Your task to perform on an android device: turn off location Image 0: 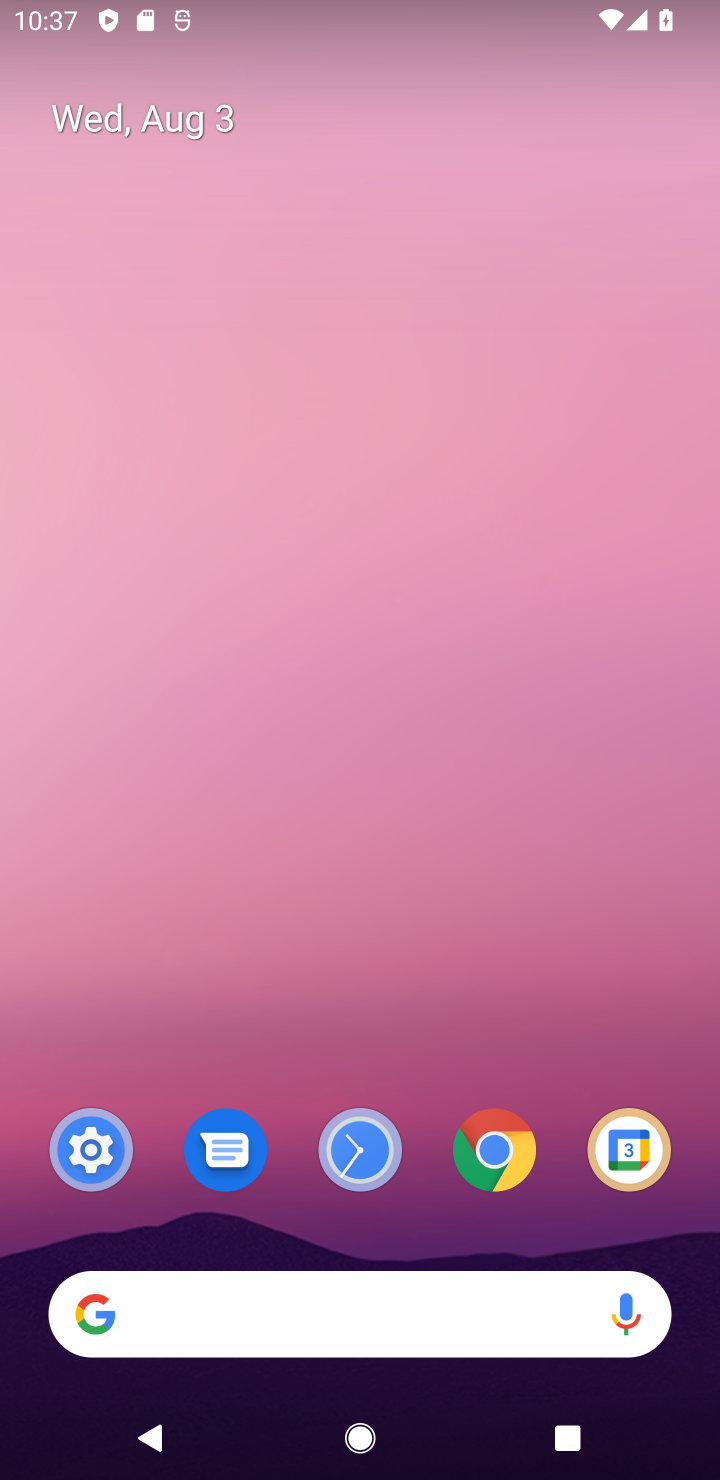
Step 0: drag from (534, 946) to (549, 188)
Your task to perform on an android device: turn off location Image 1: 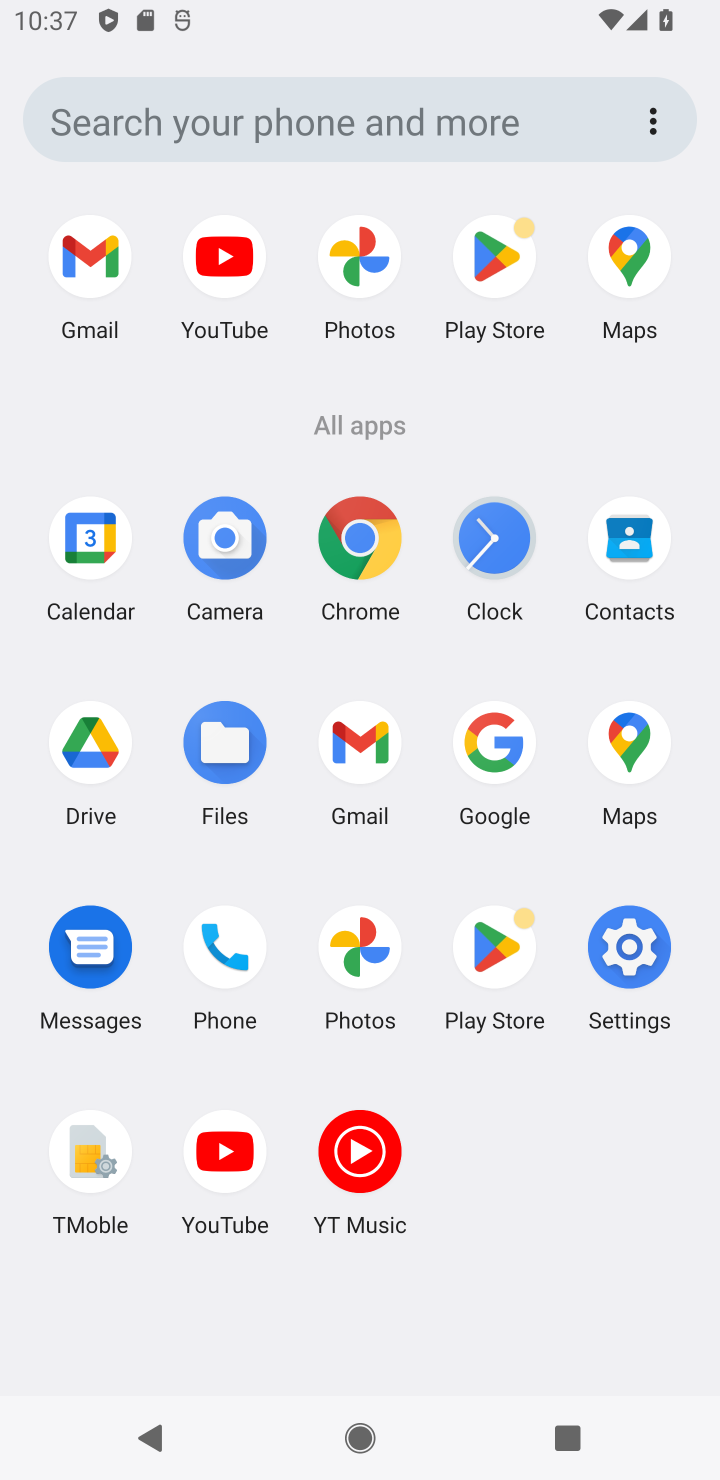
Step 1: click (632, 944)
Your task to perform on an android device: turn off location Image 2: 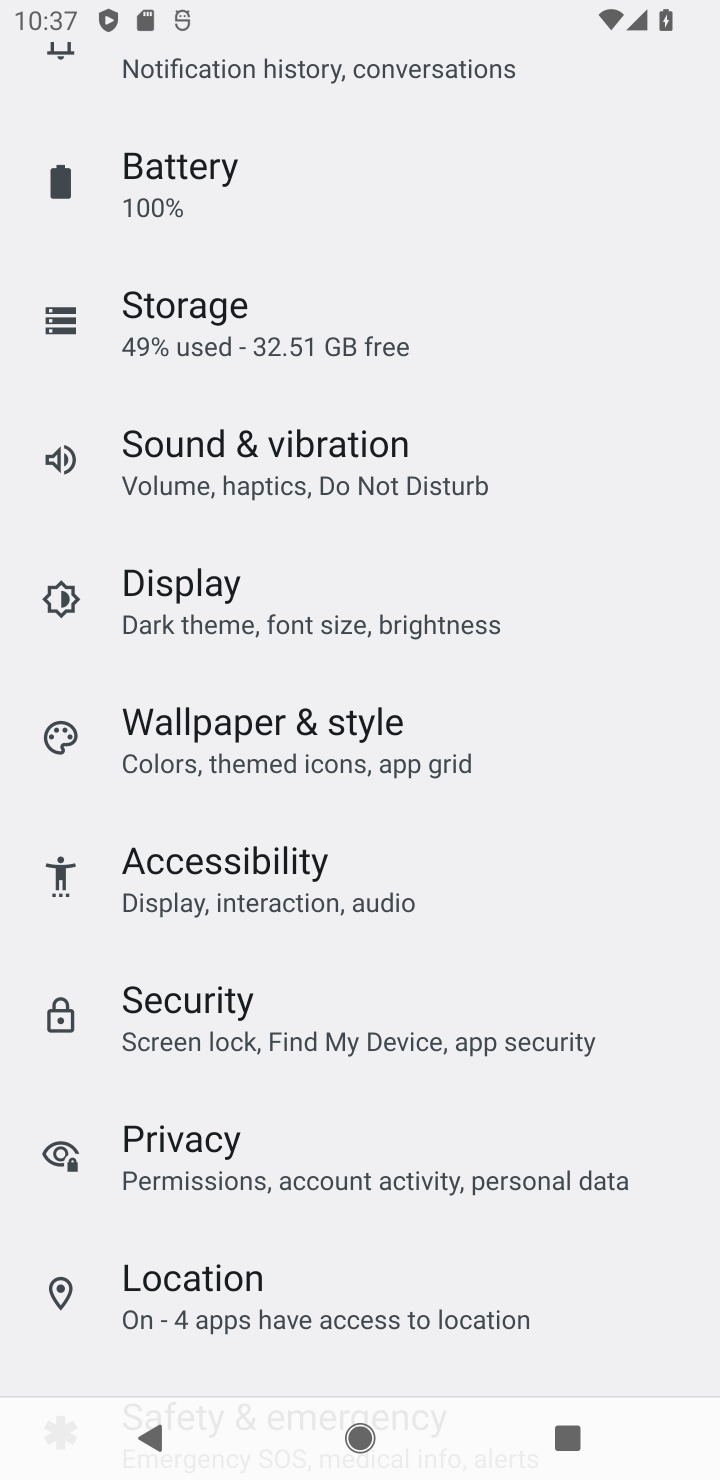
Step 2: drag from (596, 1179) to (586, 934)
Your task to perform on an android device: turn off location Image 3: 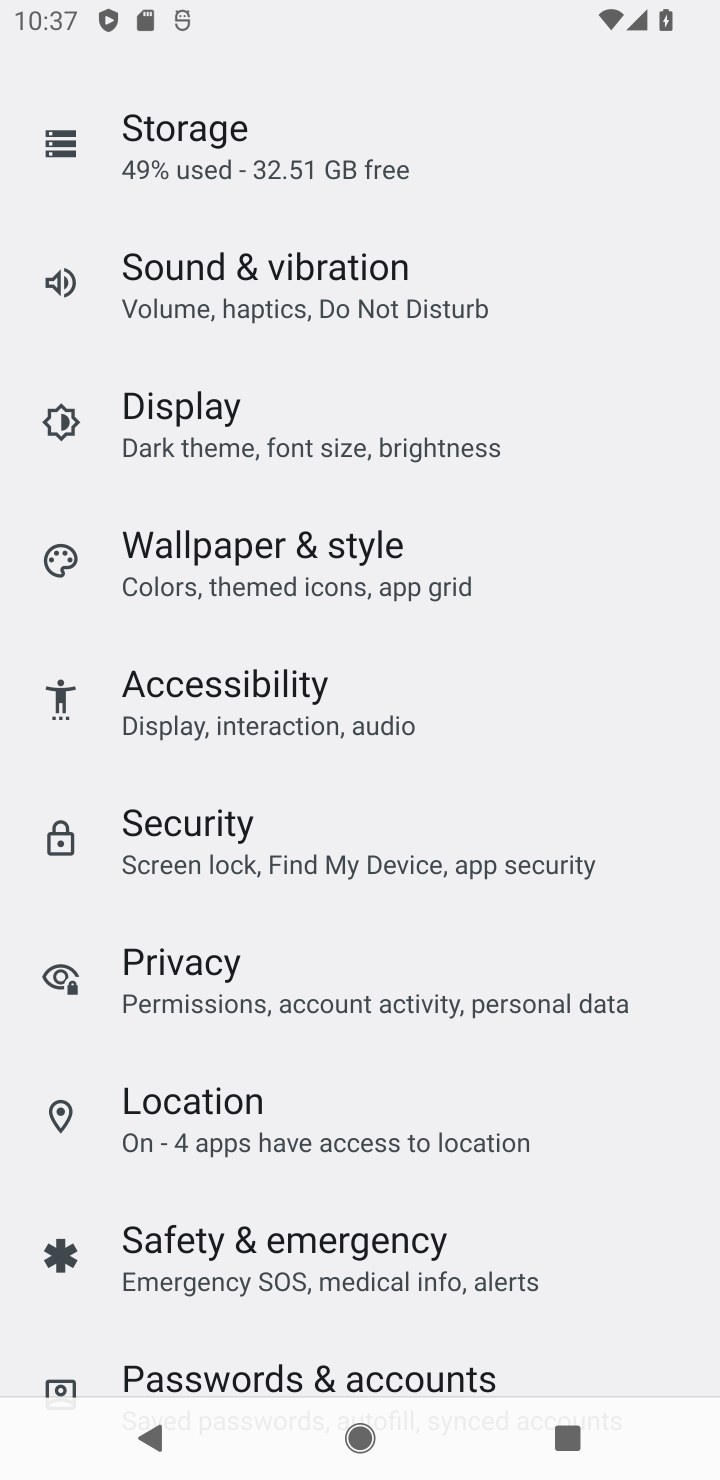
Step 3: drag from (613, 581) to (628, 856)
Your task to perform on an android device: turn off location Image 4: 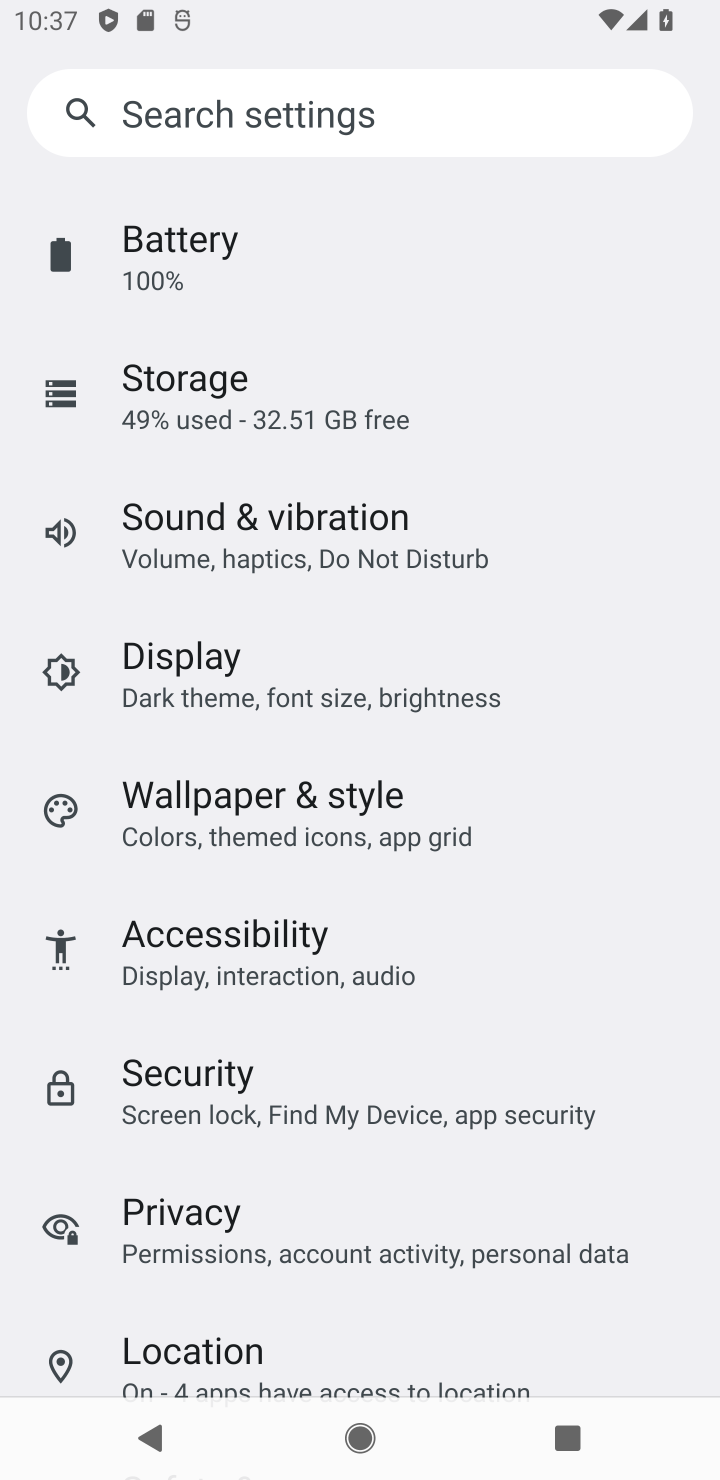
Step 4: drag from (611, 512) to (608, 788)
Your task to perform on an android device: turn off location Image 5: 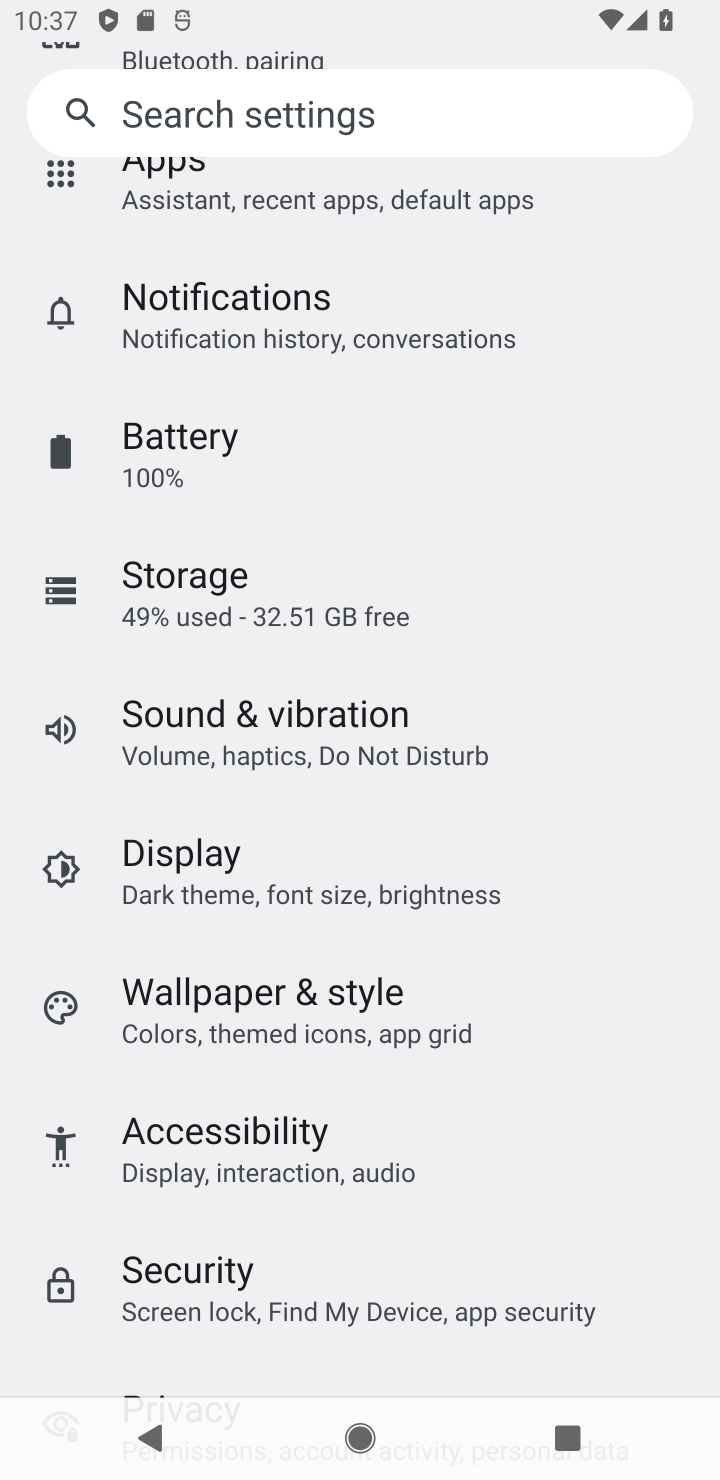
Step 5: drag from (566, 400) to (616, 793)
Your task to perform on an android device: turn off location Image 6: 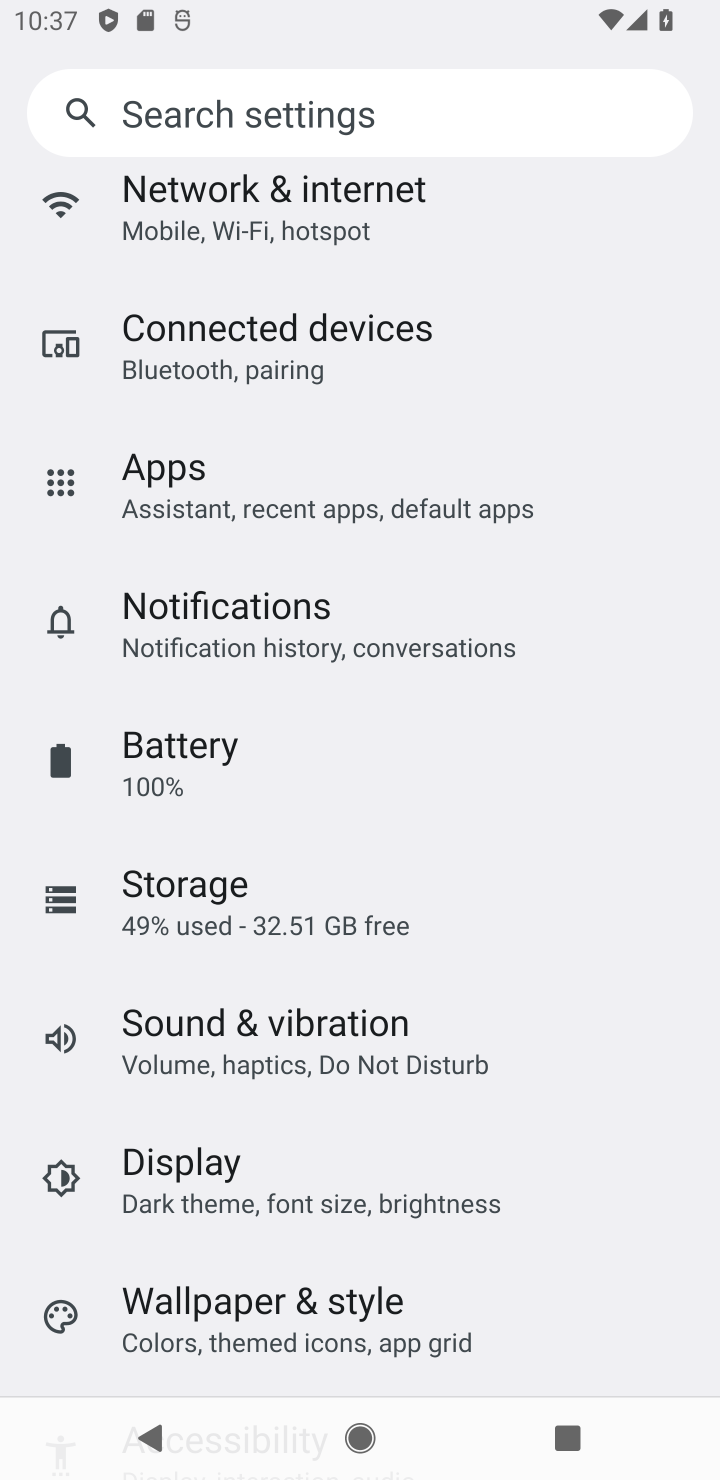
Step 6: drag from (600, 345) to (620, 786)
Your task to perform on an android device: turn off location Image 7: 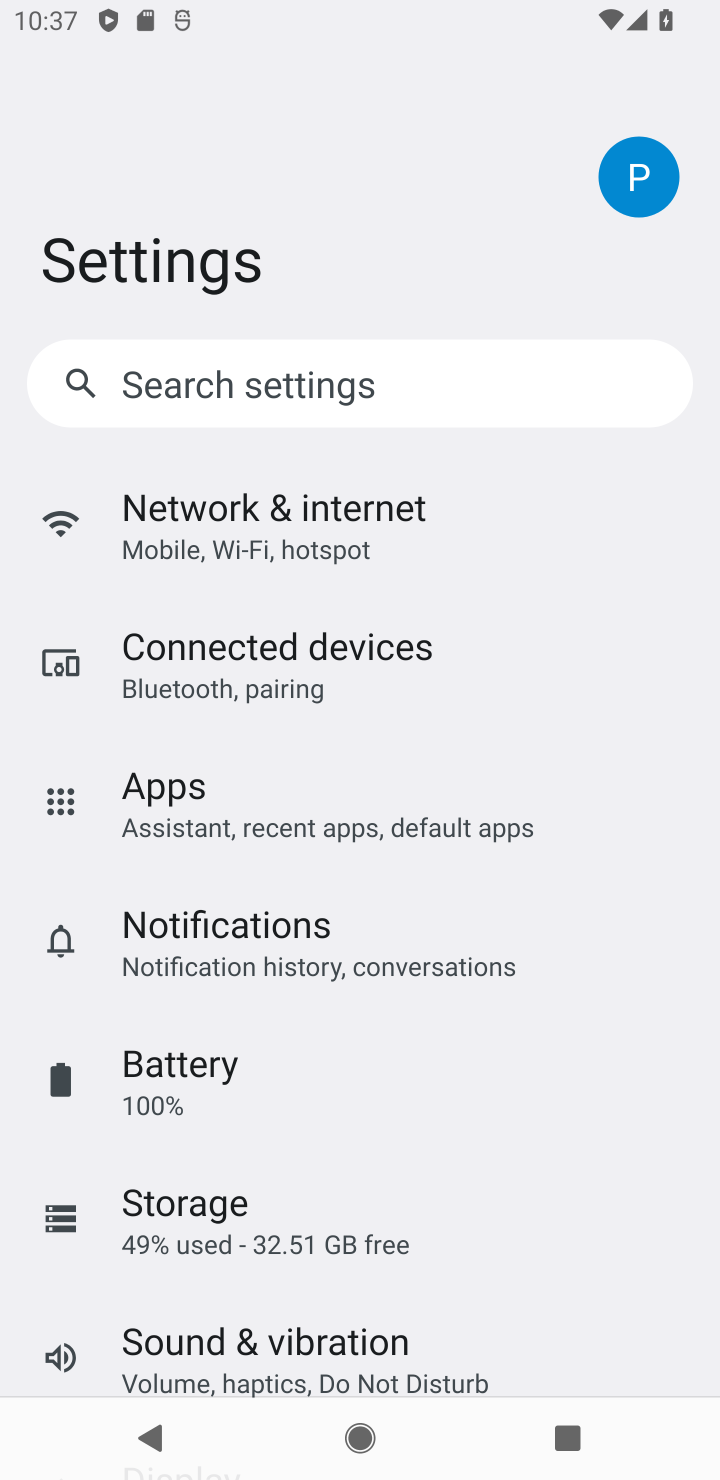
Step 7: drag from (589, 1036) to (578, 635)
Your task to perform on an android device: turn off location Image 8: 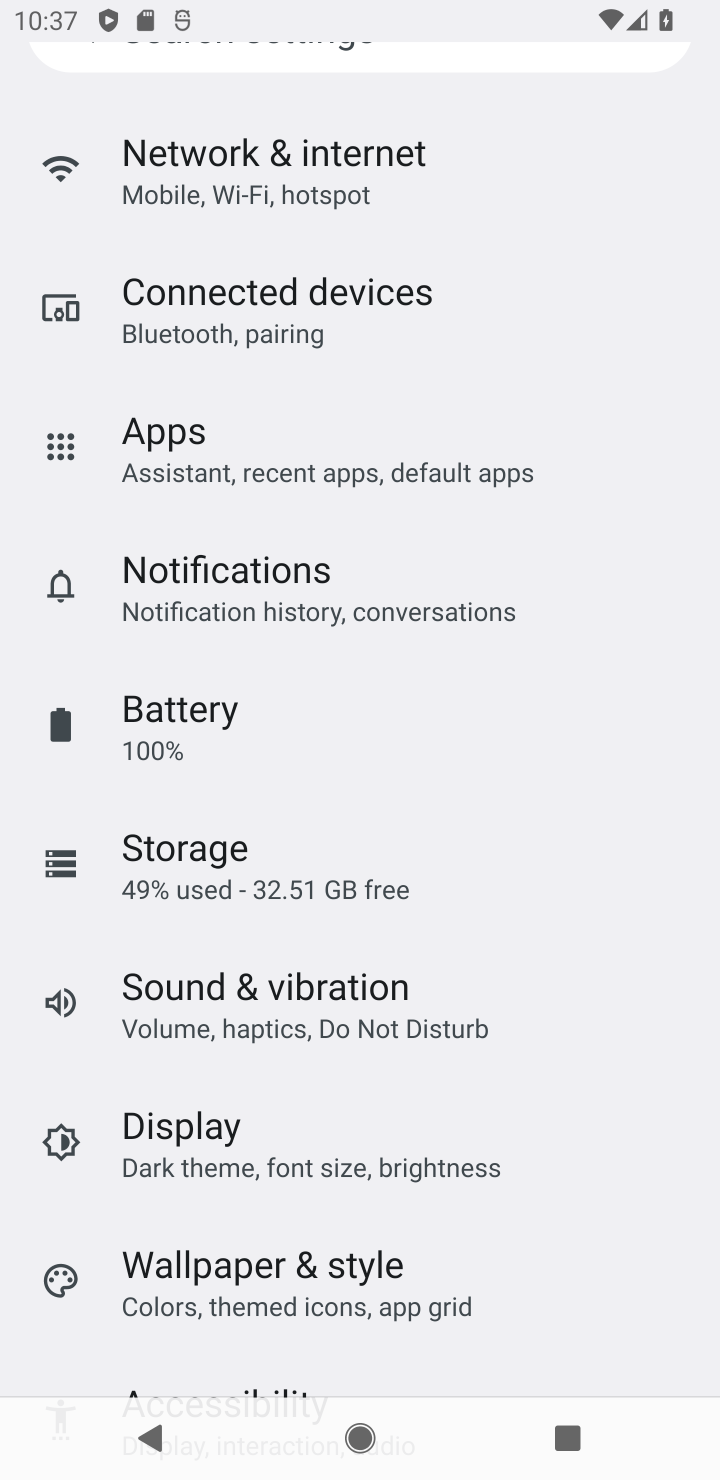
Step 8: drag from (543, 990) to (538, 587)
Your task to perform on an android device: turn off location Image 9: 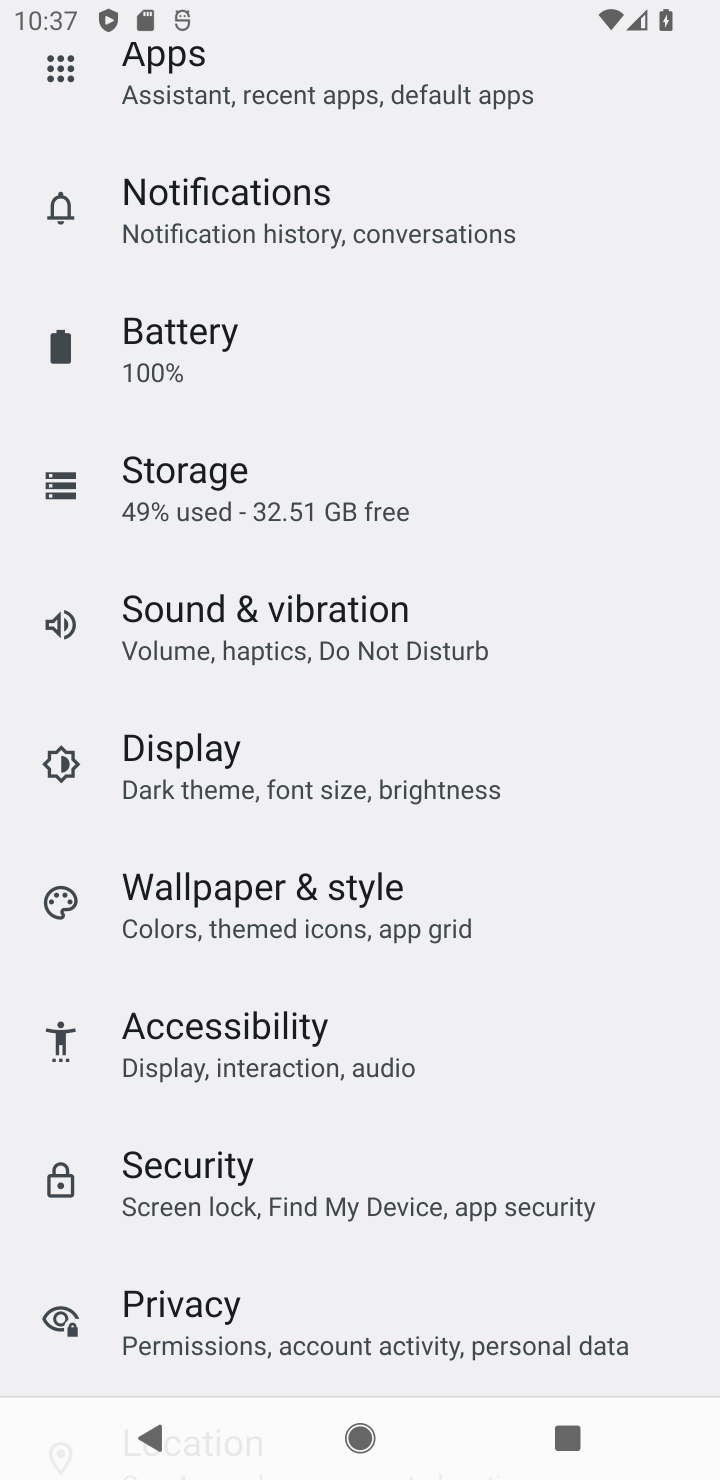
Step 9: drag from (572, 988) to (572, 622)
Your task to perform on an android device: turn off location Image 10: 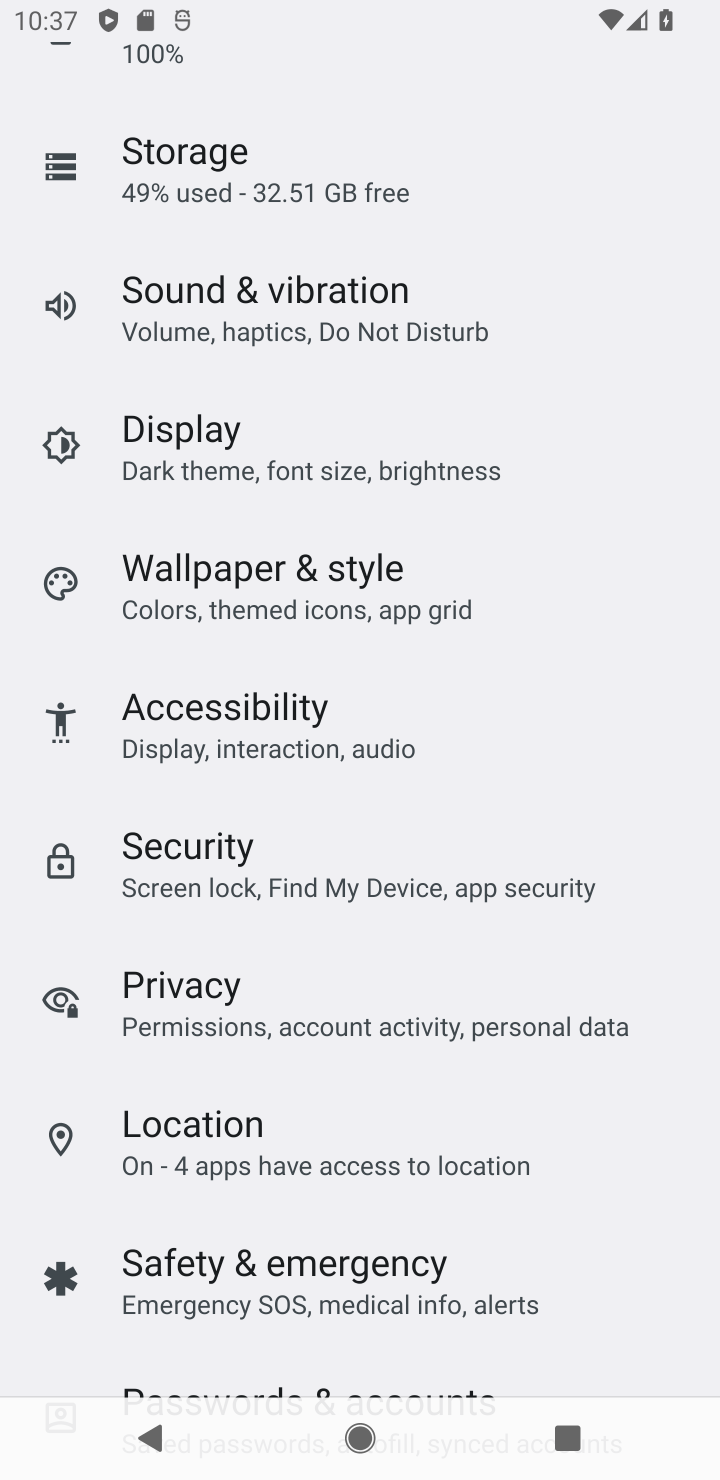
Step 10: click (521, 1132)
Your task to perform on an android device: turn off location Image 11: 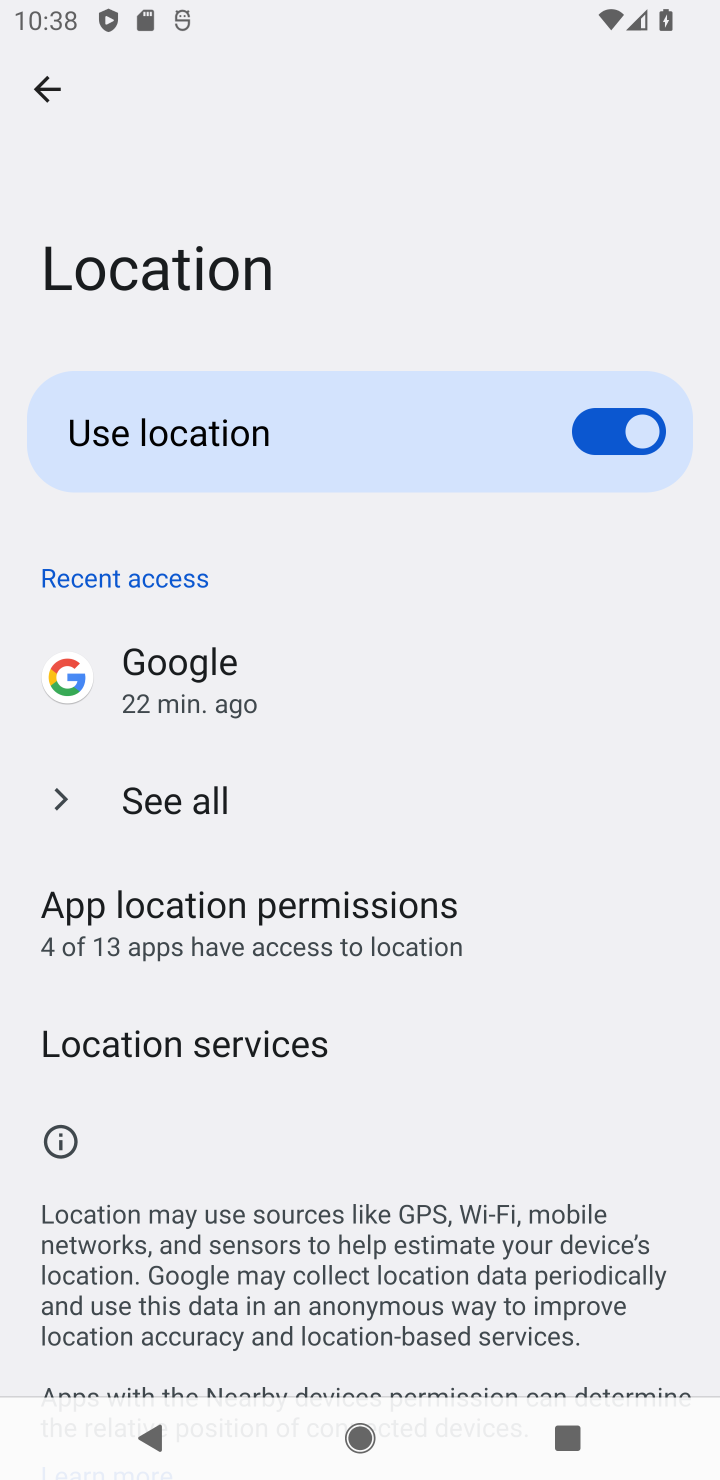
Step 11: click (643, 430)
Your task to perform on an android device: turn off location Image 12: 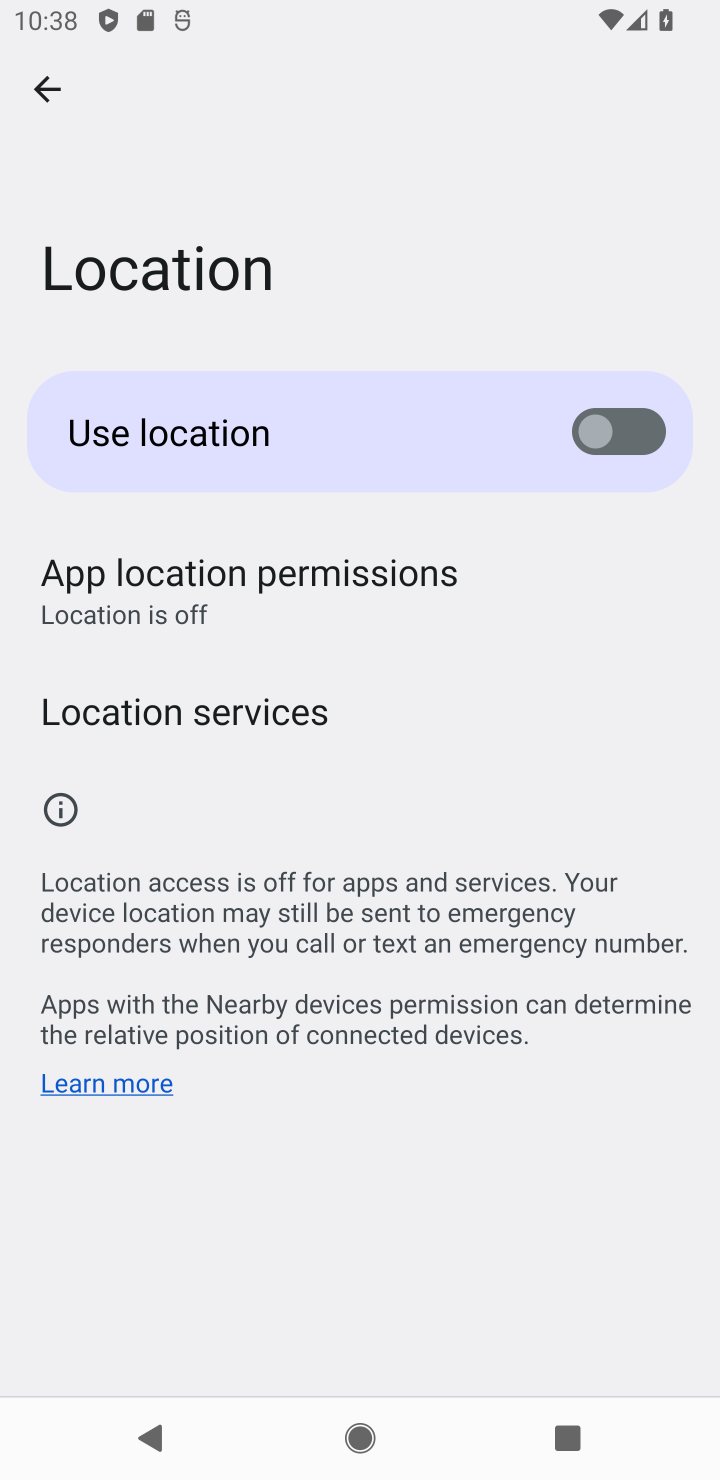
Step 12: task complete